Your task to perform on an android device: turn on airplane mode Image 0: 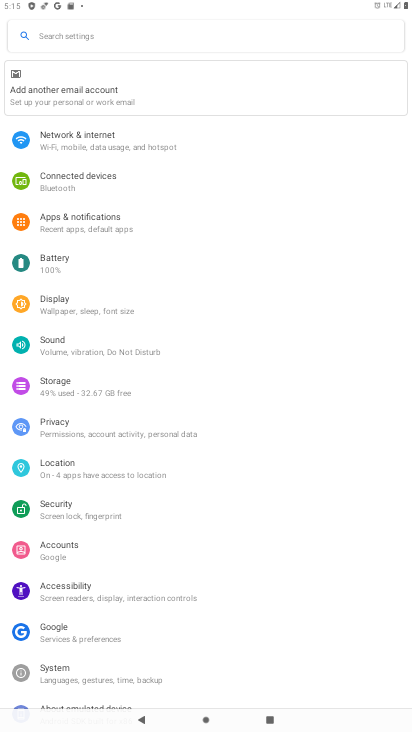
Step 0: click (148, 137)
Your task to perform on an android device: turn on airplane mode Image 1: 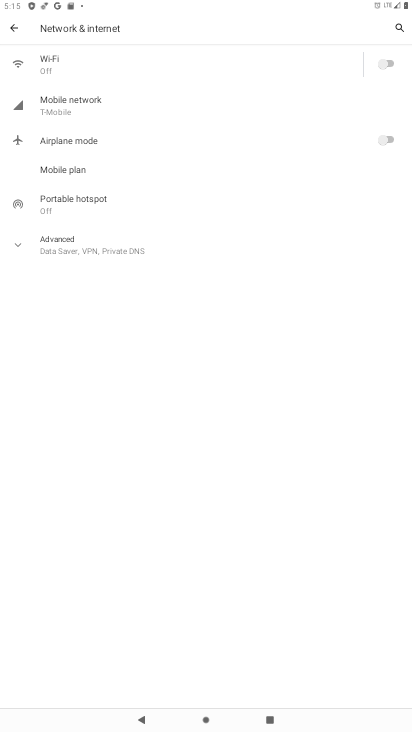
Step 1: click (392, 136)
Your task to perform on an android device: turn on airplane mode Image 2: 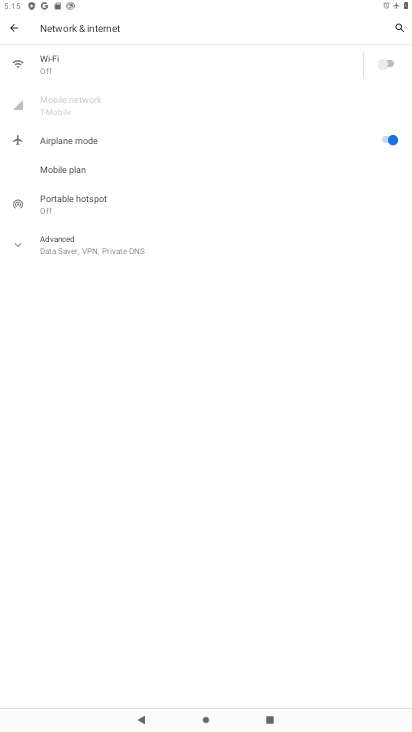
Step 2: task complete